Your task to perform on an android device: Search for seafood restaurants on Google Maps Image 0: 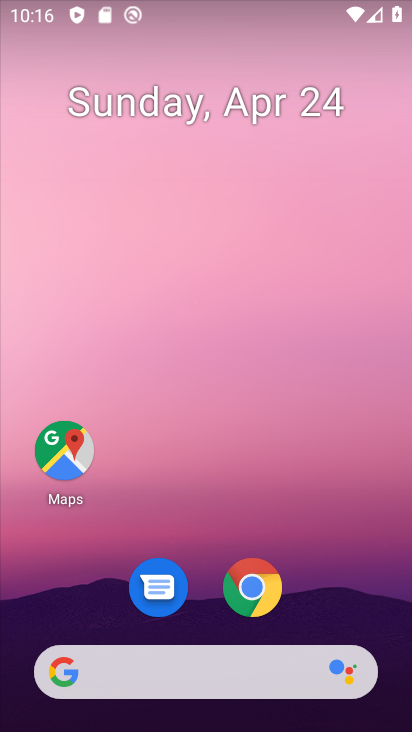
Step 0: drag from (192, 524) to (209, 387)
Your task to perform on an android device: Search for seafood restaurants on Google Maps Image 1: 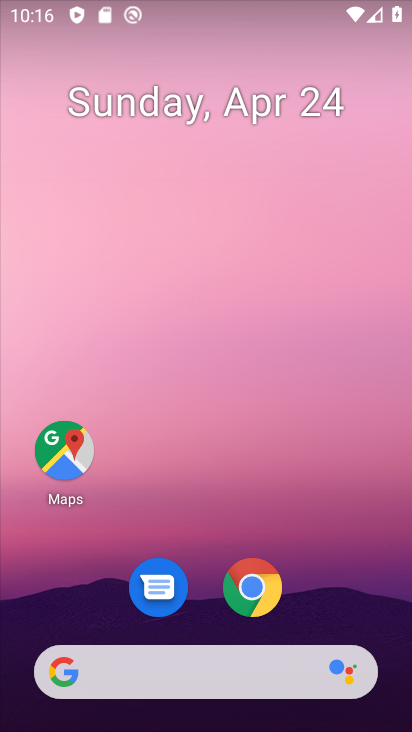
Step 1: click (59, 441)
Your task to perform on an android device: Search for seafood restaurants on Google Maps Image 2: 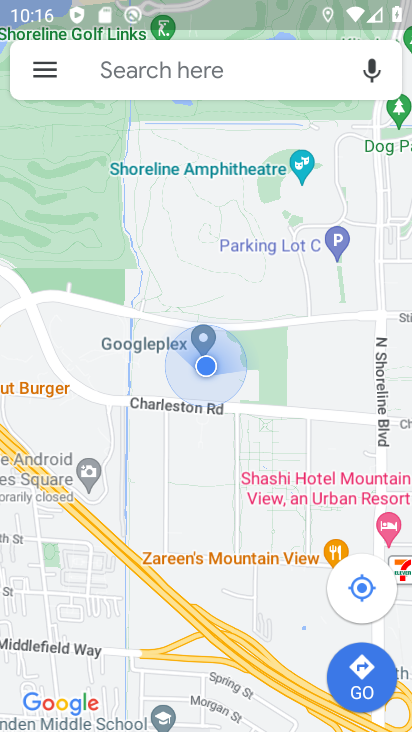
Step 2: click (147, 75)
Your task to perform on an android device: Search for seafood restaurants on Google Maps Image 3: 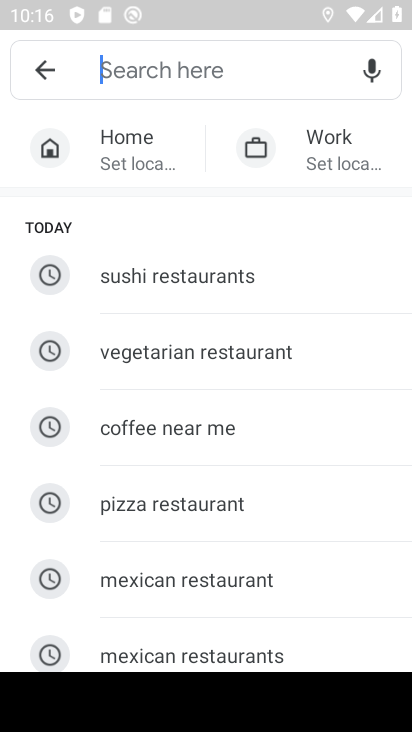
Step 3: type "seafood restaurant"
Your task to perform on an android device: Search for seafood restaurants on Google Maps Image 4: 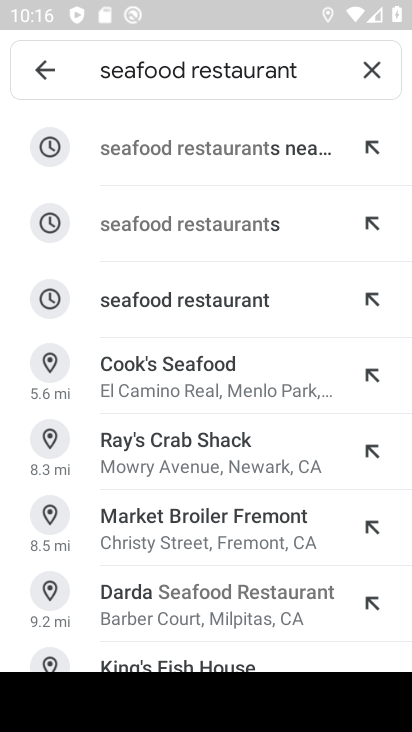
Step 4: click (231, 221)
Your task to perform on an android device: Search for seafood restaurants on Google Maps Image 5: 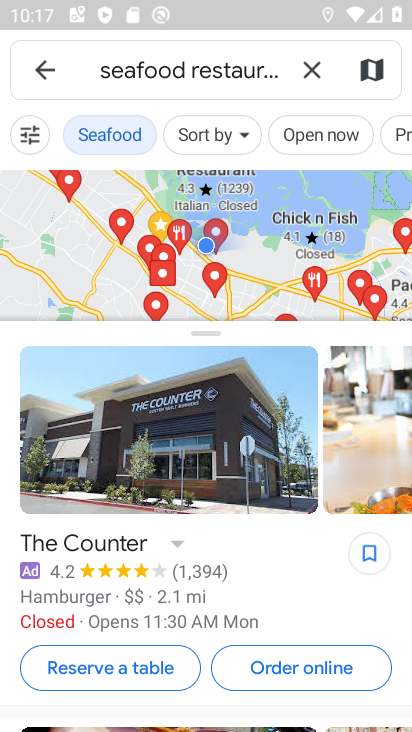
Step 5: task complete